Your task to perform on an android device: open a new tab in the chrome app Image 0: 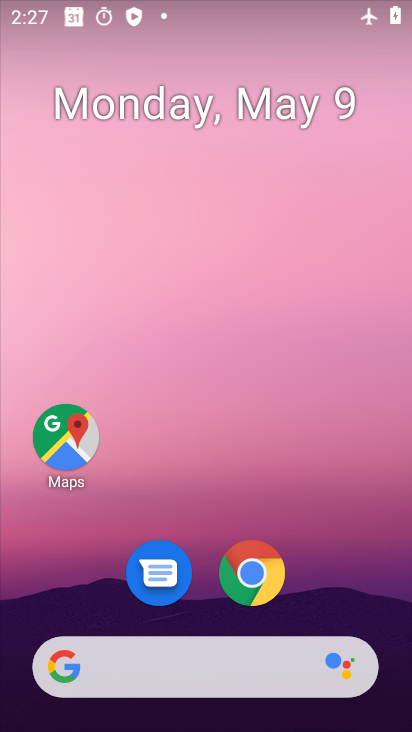
Step 0: drag from (323, 642) to (218, 5)
Your task to perform on an android device: open a new tab in the chrome app Image 1: 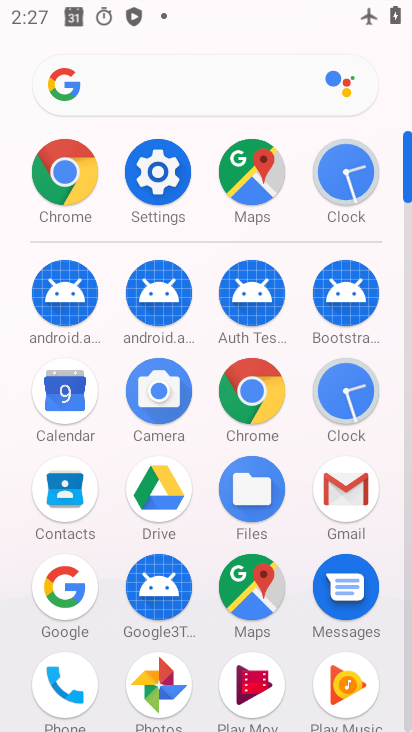
Step 1: drag from (267, 494) to (240, 1)
Your task to perform on an android device: open a new tab in the chrome app Image 2: 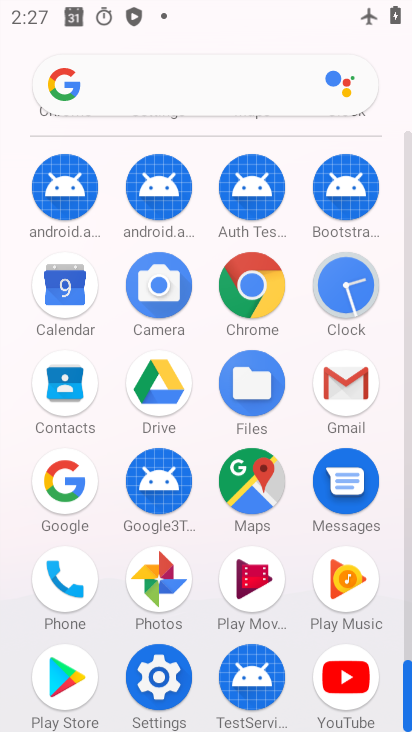
Step 2: click (54, 176)
Your task to perform on an android device: open a new tab in the chrome app Image 3: 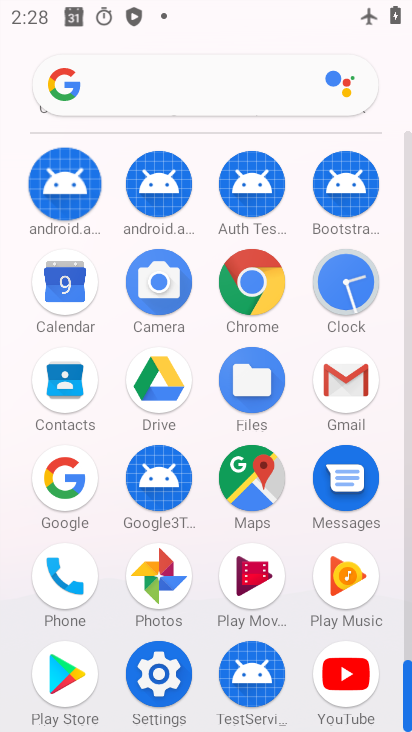
Step 3: click (258, 279)
Your task to perform on an android device: open a new tab in the chrome app Image 4: 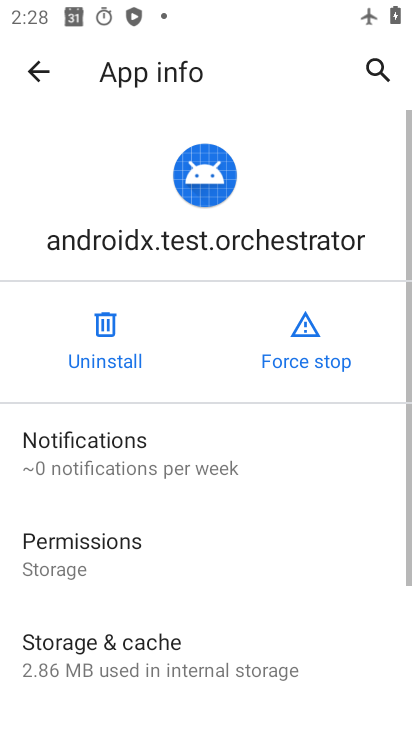
Step 4: click (256, 278)
Your task to perform on an android device: open a new tab in the chrome app Image 5: 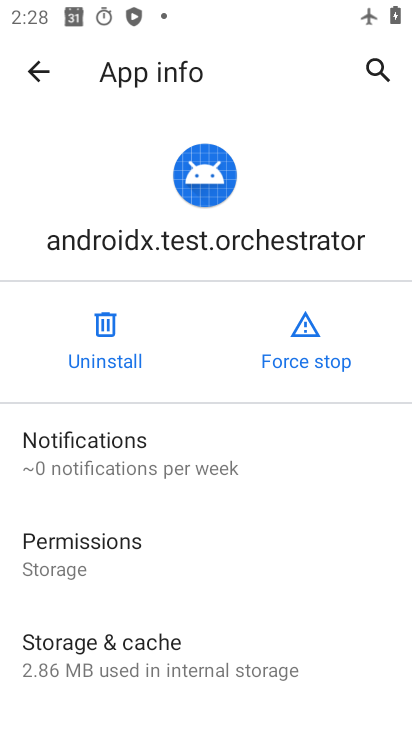
Step 5: click (30, 71)
Your task to perform on an android device: open a new tab in the chrome app Image 6: 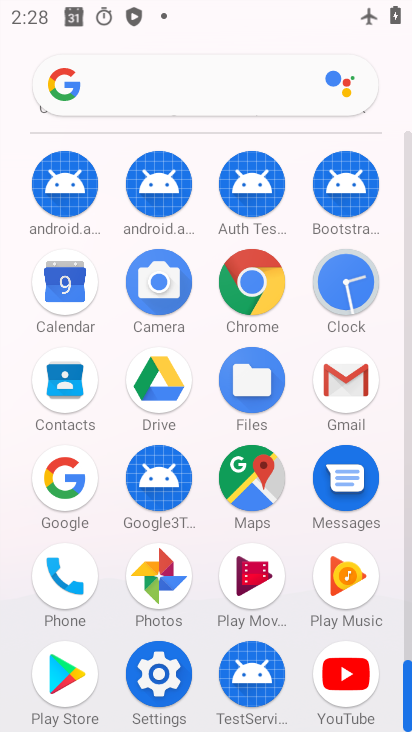
Step 6: click (253, 281)
Your task to perform on an android device: open a new tab in the chrome app Image 7: 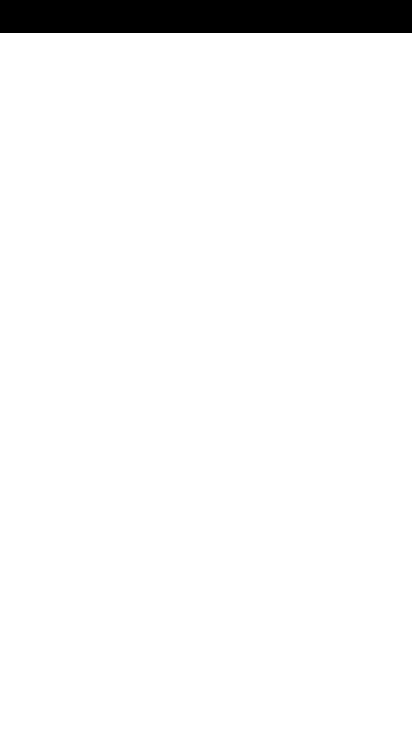
Step 7: drag from (256, 283) to (276, 352)
Your task to perform on an android device: open a new tab in the chrome app Image 8: 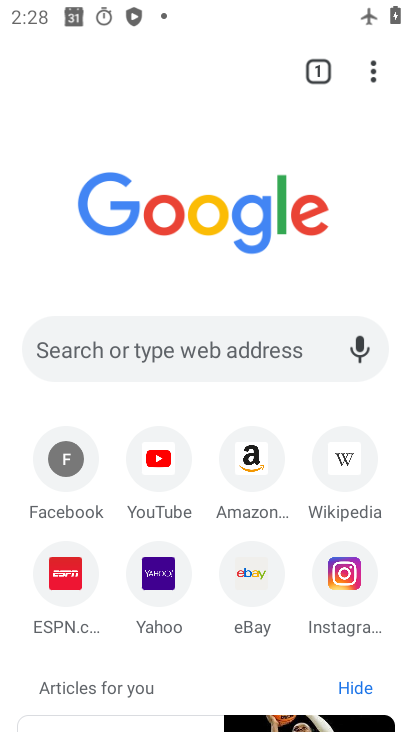
Step 8: click (261, 291)
Your task to perform on an android device: open a new tab in the chrome app Image 9: 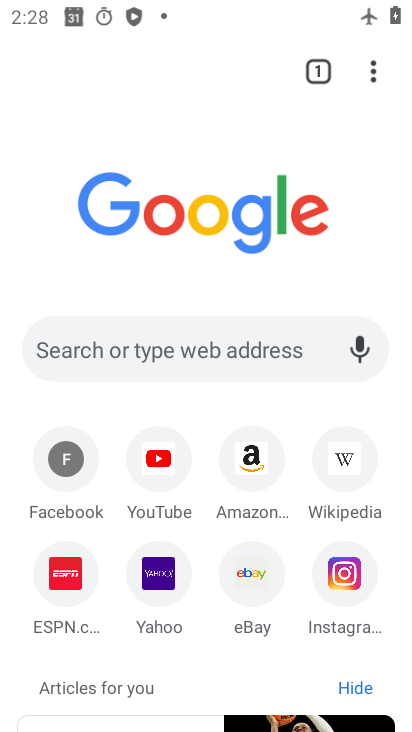
Step 9: click (370, 75)
Your task to perform on an android device: open a new tab in the chrome app Image 10: 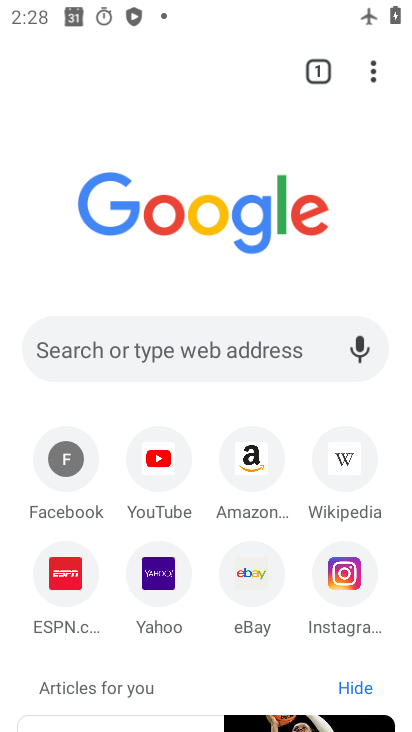
Step 10: drag from (375, 69) to (93, 150)
Your task to perform on an android device: open a new tab in the chrome app Image 11: 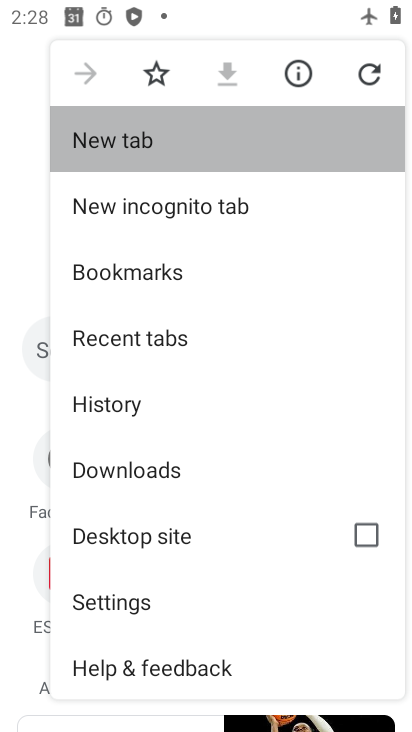
Step 11: click (93, 150)
Your task to perform on an android device: open a new tab in the chrome app Image 12: 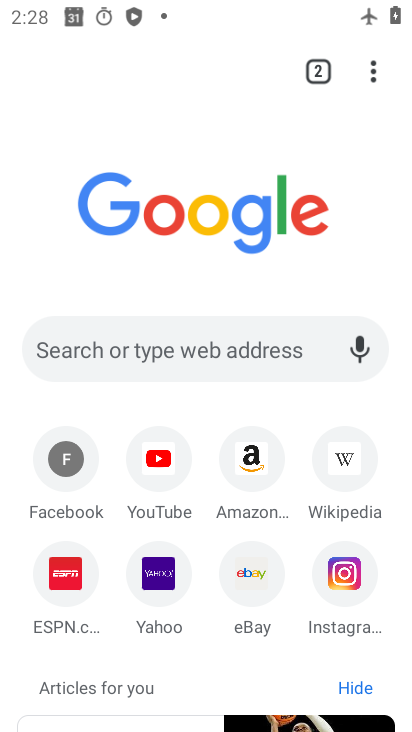
Step 12: task complete